Your task to perform on an android device: open app "Mercado Libre" (install if not already installed) and enter user name: "tolerating@yahoo.com" and password: "Kepler" Image 0: 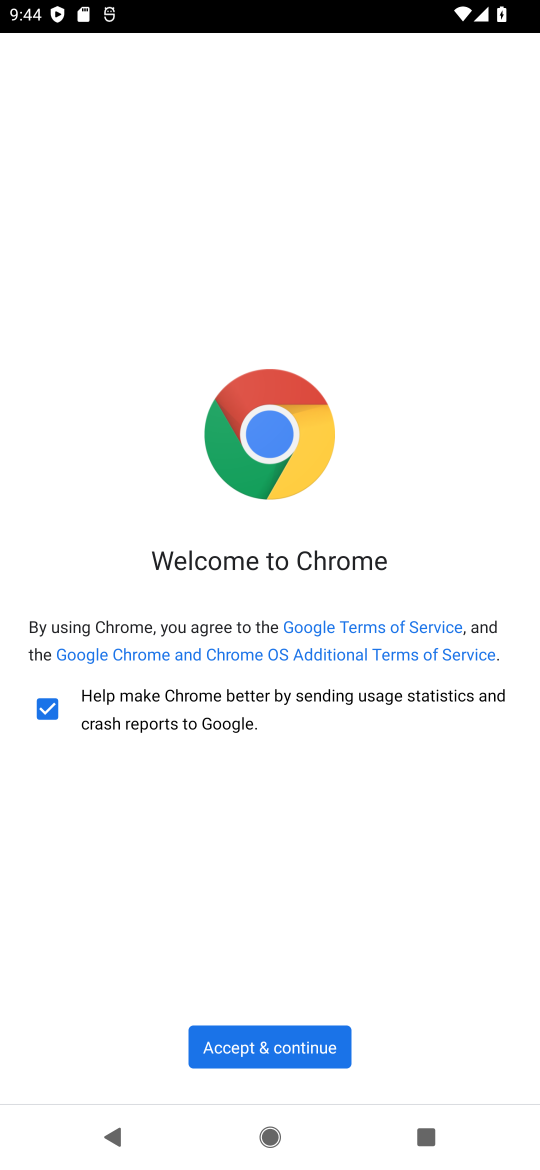
Step 0: press back button
Your task to perform on an android device: open app "Mercado Libre" (install if not already installed) and enter user name: "tolerating@yahoo.com" and password: "Kepler" Image 1: 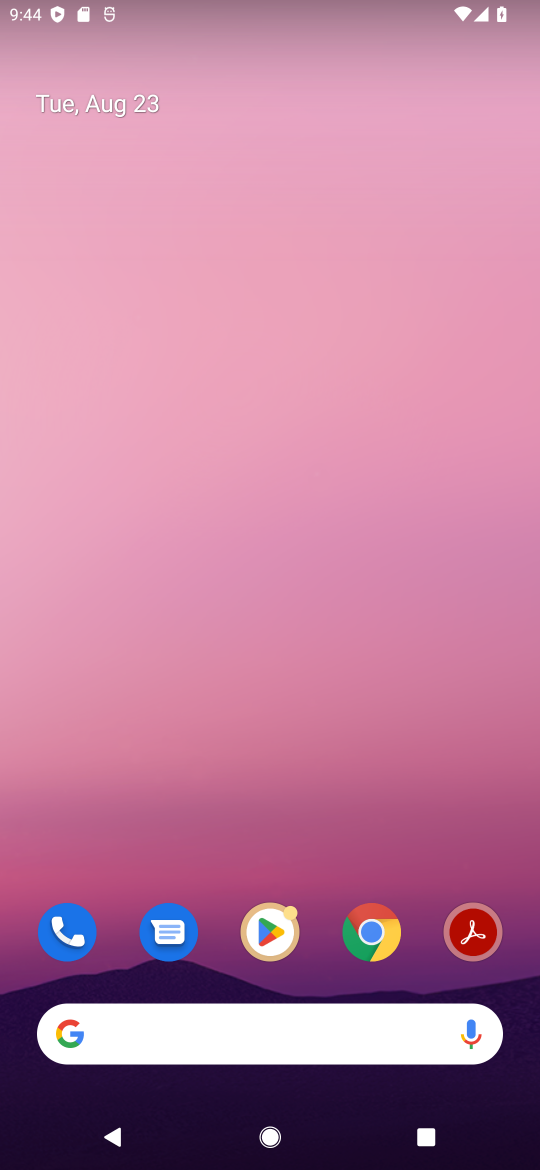
Step 1: click (270, 922)
Your task to perform on an android device: open app "Mercado Libre" (install if not already installed) and enter user name: "tolerating@yahoo.com" and password: "Kepler" Image 2: 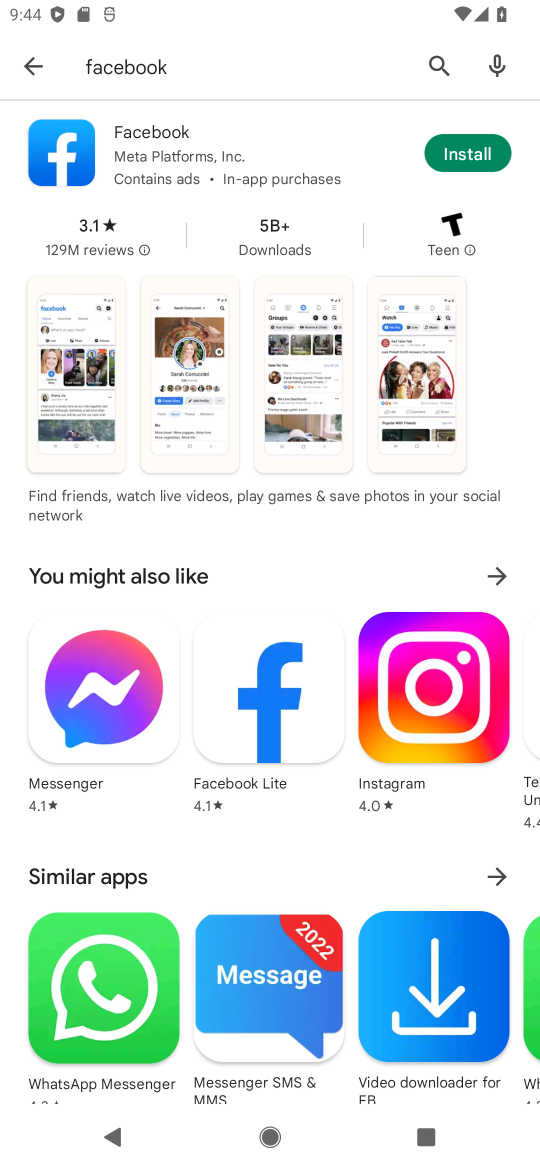
Step 2: click (439, 49)
Your task to perform on an android device: open app "Mercado Libre" (install if not already installed) and enter user name: "tolerating@yahoo.com" and password: "Kepler" Image 3: 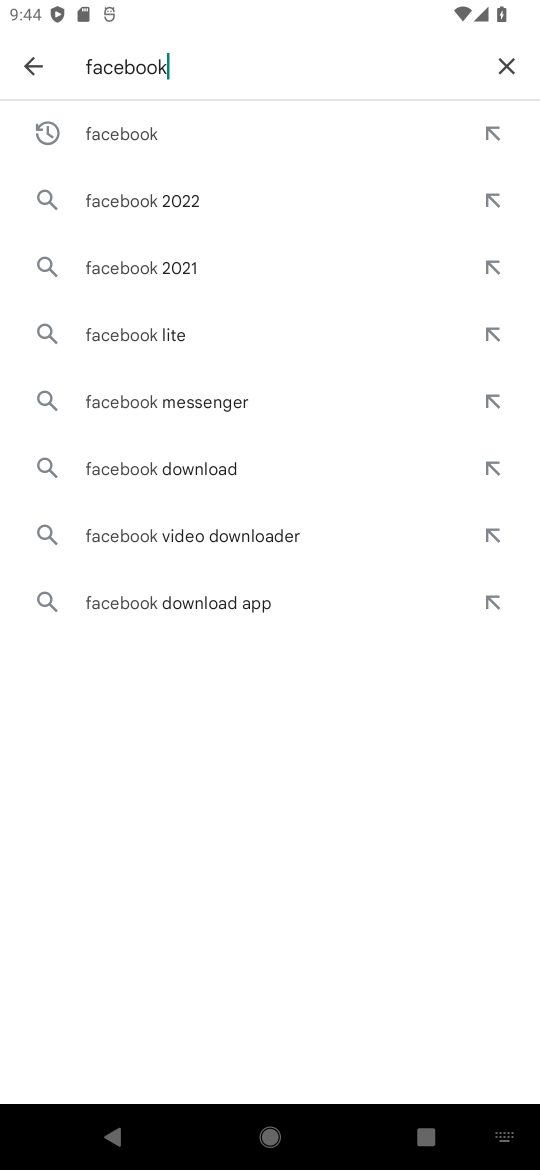
Step 3: click (504, 71)
Your task to perform on an android device: open app "Mercado Libre" (install if not already installed) and enter user name: "tolerating@yahoo.com" and password: "Kepler" Image 4: 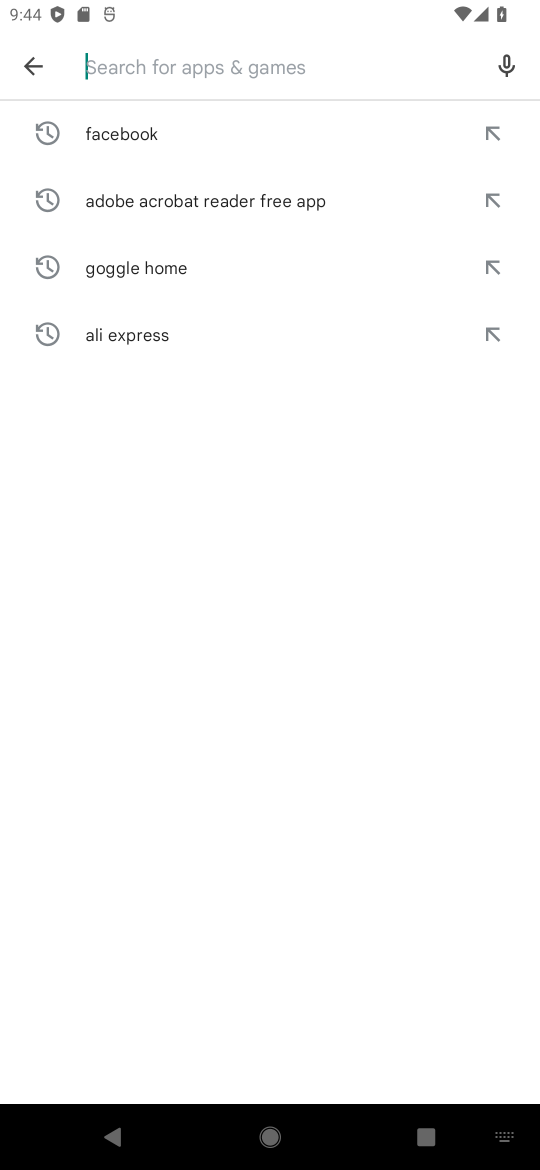
Step 4: click (88, 46)
Your task to perform on an android device: open app "Mercado Libre" (install if not already installed) and enter user name: "tolerating@yahoo.com" and password: "Kepler" Image 5: 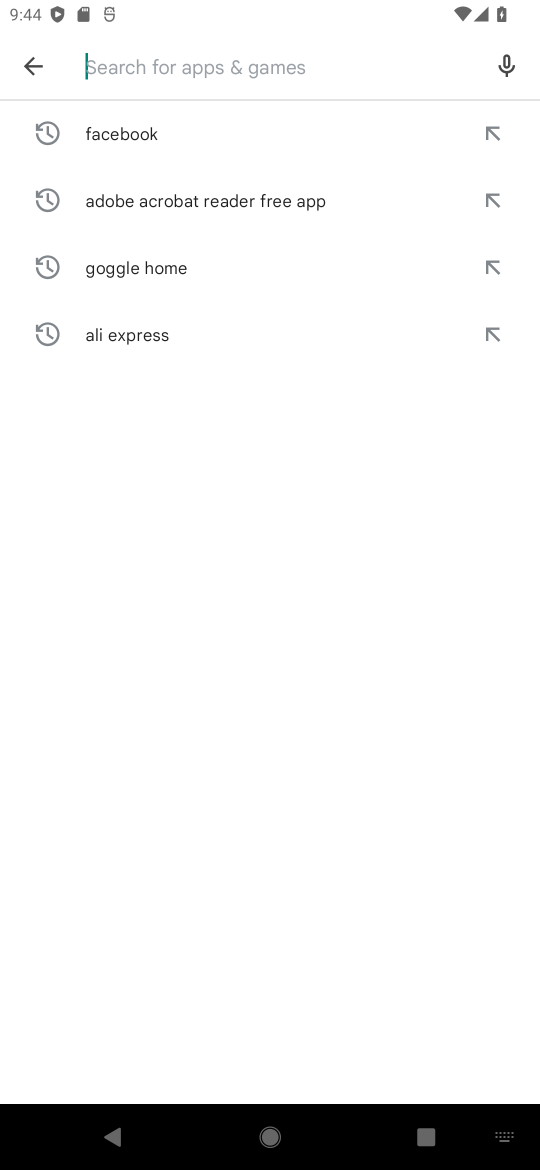
Step 5: type "mercado libre"
Your task to perform on an android device: open app "Mercado Libre" (install if not already installed) and enter user name: "tolerating@yahoo.com" and password: "Kepler" Image 6: 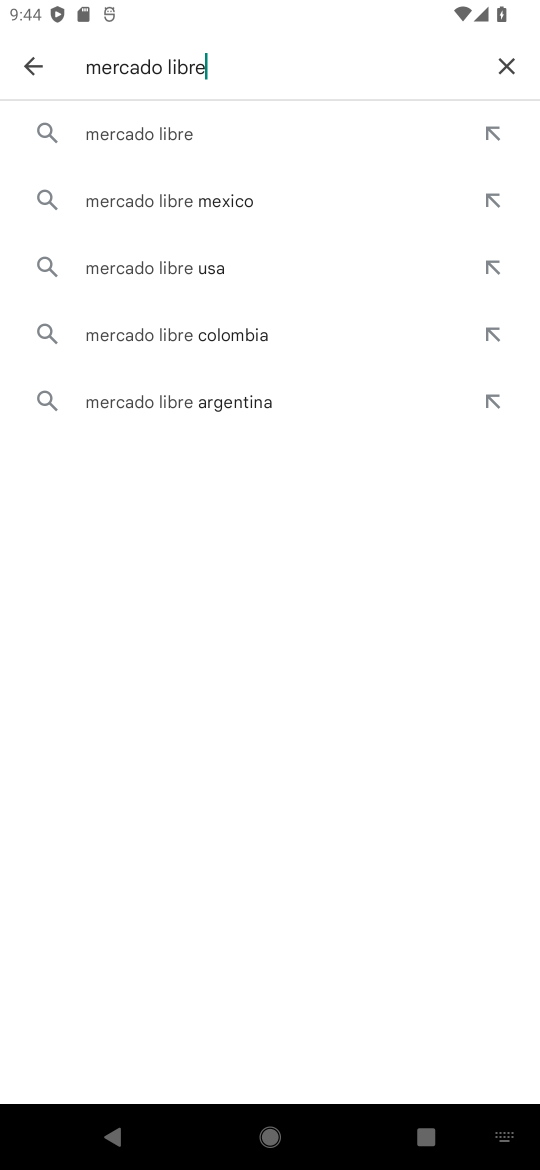
Step 6: click (191, 135)
Your task to perform on an android device: open app "Mercado Libre" (install if not already installed) and enter user name: "tolerating@yahoo.com" and password: "Kepler" Image 7: 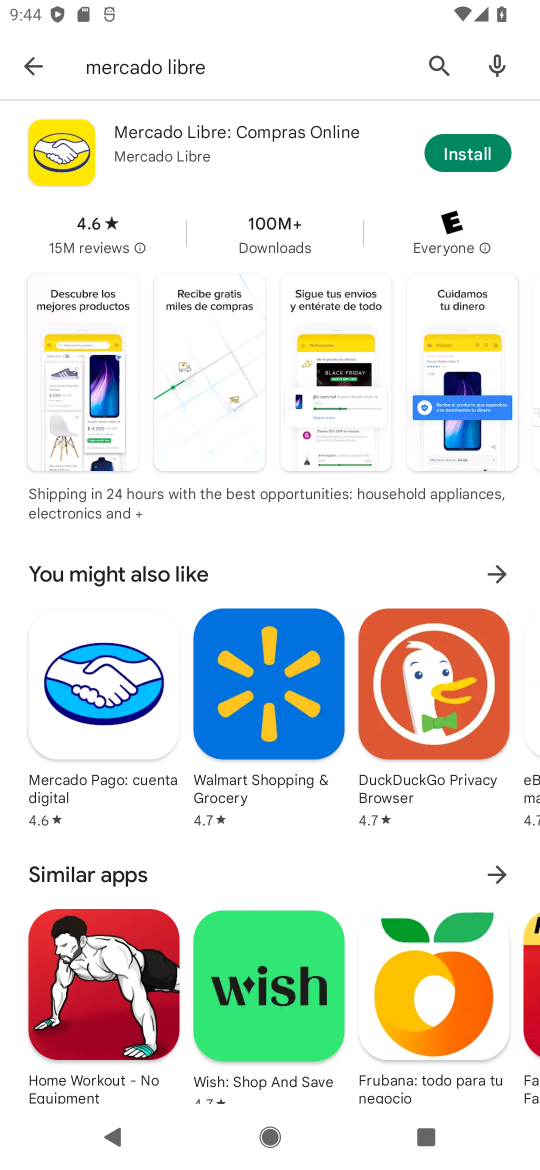
Step 7: click (468, 149)
Your task to perform on an android device: open app "Mercado Libre" (install if not already installed) and enter user name: "tolerating@yahoo.com" and password: "Kepler" Image 8: 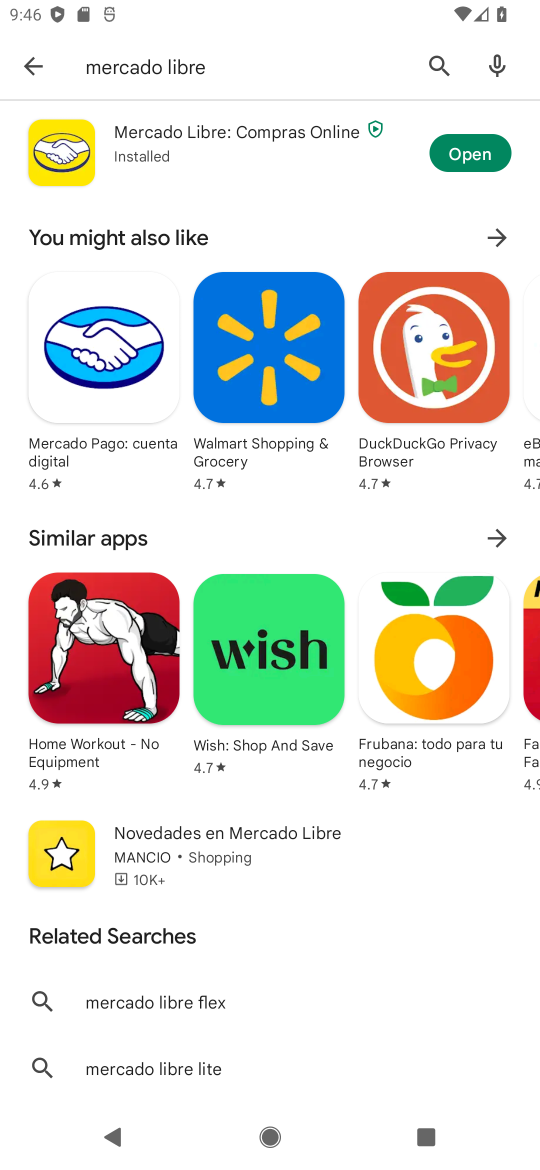
Step 8: click (465, 152)
Your task to perform on an android device: open app "Mercado Libre" (install if not already installed) and enter user name: "tolerating@yahoo.com" and password: "Kepler" Image 9: 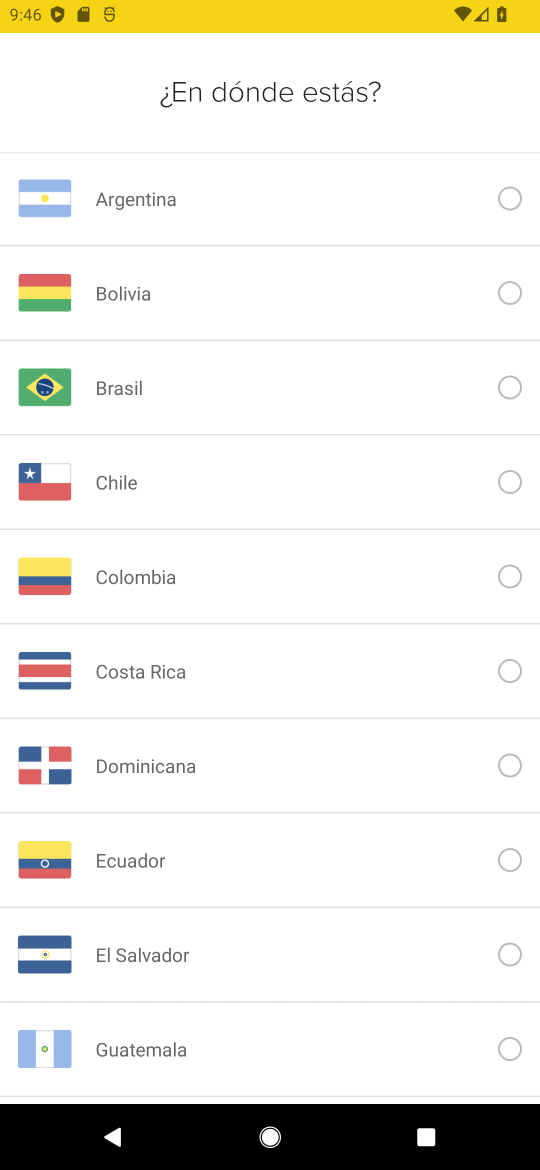
Step 9: task complete